Your task to perform on an android device: Show me popular games on the Play Store Image 0: 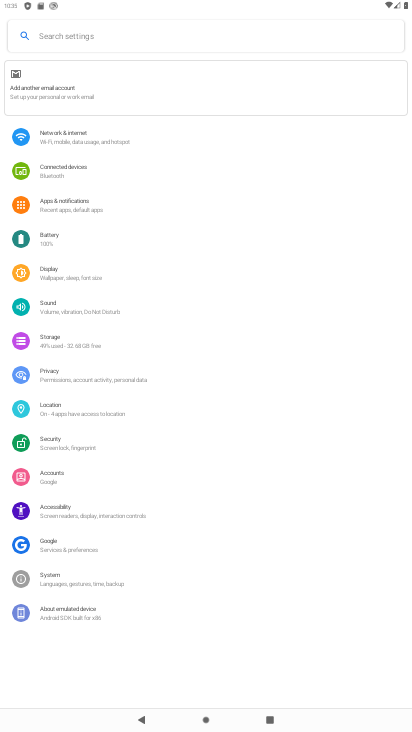
Step 0: press home button
Your task to perform on an android device: Show me popular games on the Play Store Image 1: 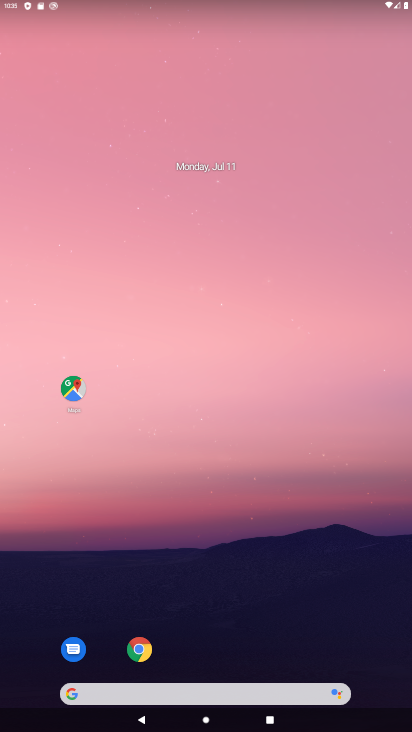
Step 1: drag from (330, 463) to (250, 136)
Your task to perform on an android device: Show me popular games on the Play Store Image 2: 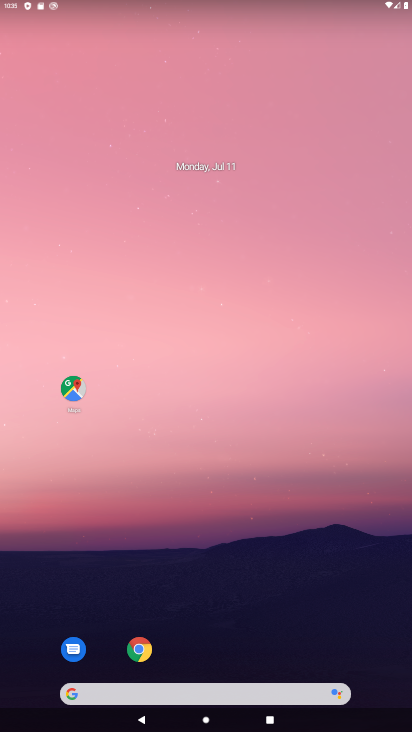
Step 2: drag from (319, 396) to (238, 1)
Your task to perform on an android device: Show me popular games on the Play Store Image 3: 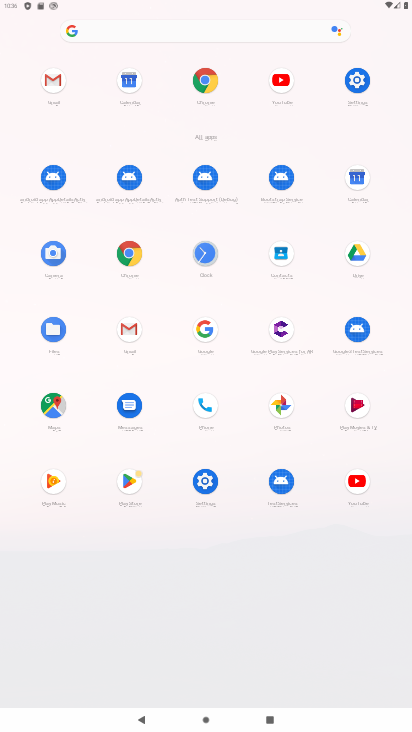
Step 3: click (134, 475)
Your task to perform on an android device: Show me popular games on the Play Store Image 4: 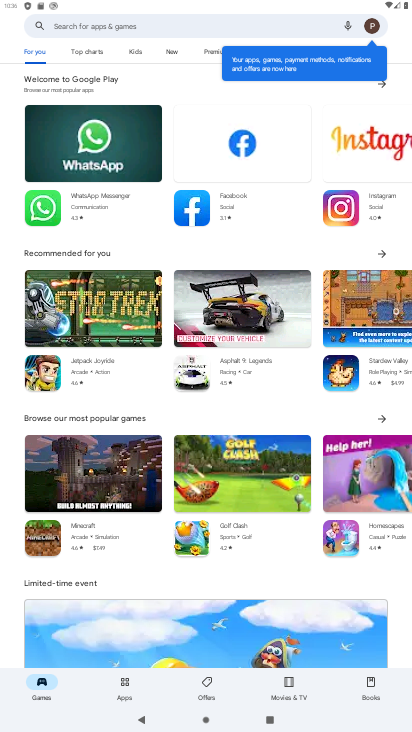
Step 4: task complete